Your task to perform on an android device: toggle notification dots Image 0: 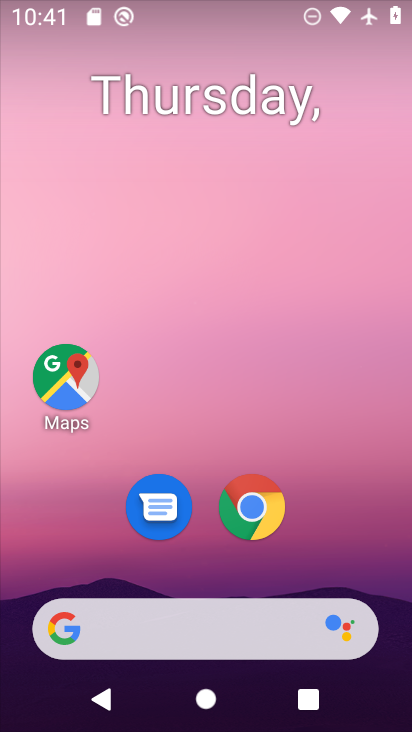
Step 0: drag from (331, 577) to (291, 46)
Your task to perform on an android device: toggle notification dots Image 1: 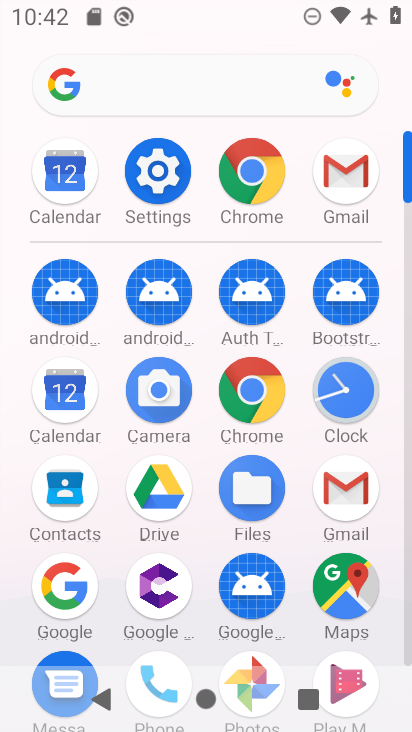
Step 1: click (158, 163)
Your task to perform on an android device: toggle notification dots Image 2: 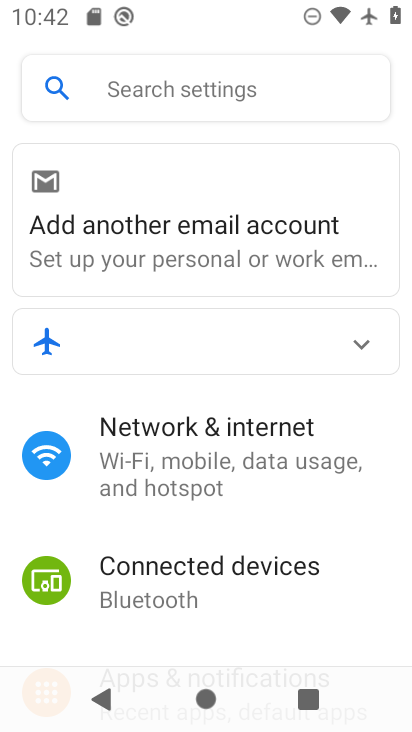
Step 2: drag from (321, 563) to (318, 141)
Your task to perform on an android device: toggle notification dots Image 3: 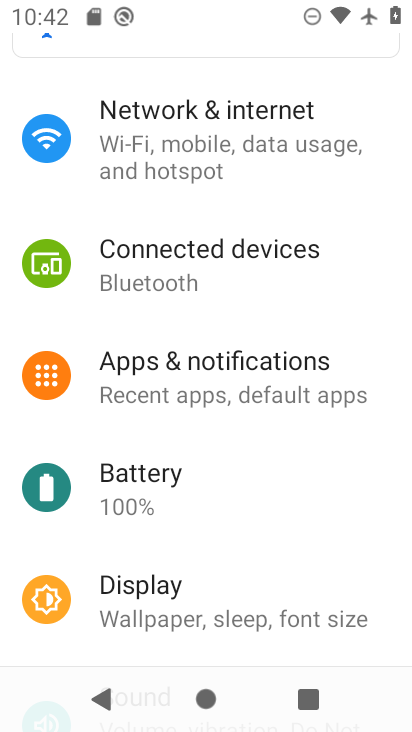
Step 3: click (212, 384)
Your task to perform on an android device: toggle notification dots Image 4: 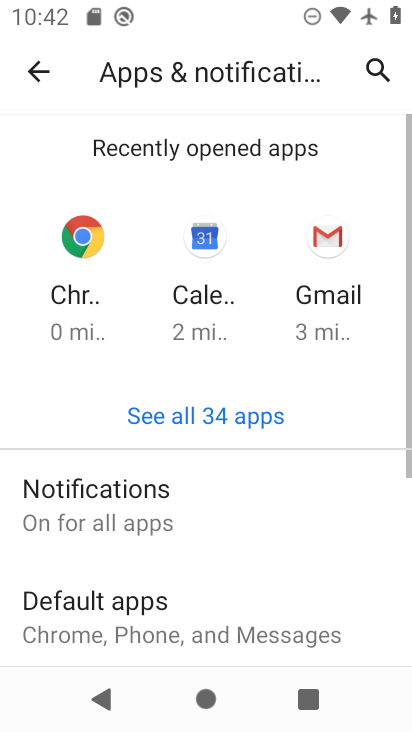
Step 4: click (175, 487)
Your task to perform on an android device: toggle notification dots Image 5: 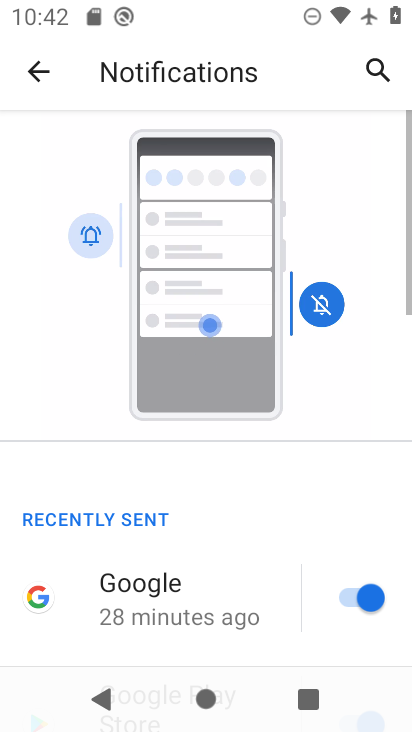
Step 5: drag from (276, 559) to (216, 210)
Your task to perform on an android device: toggle notification dots Image 6: 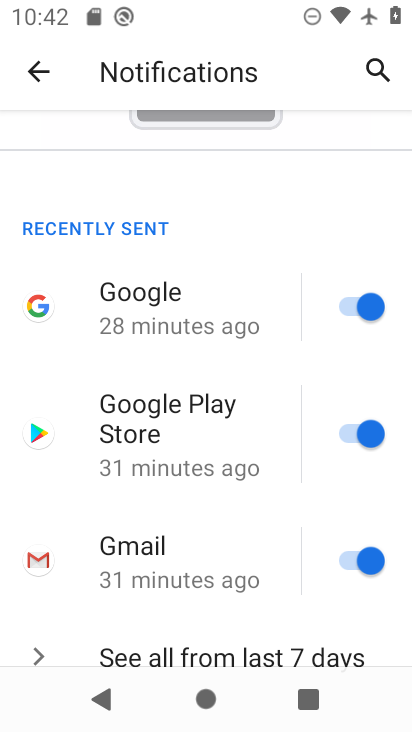
Step 6: drag from (219, 580) to (275, 206)
Your task to perform on an android device: toggle notification dots Image 7: 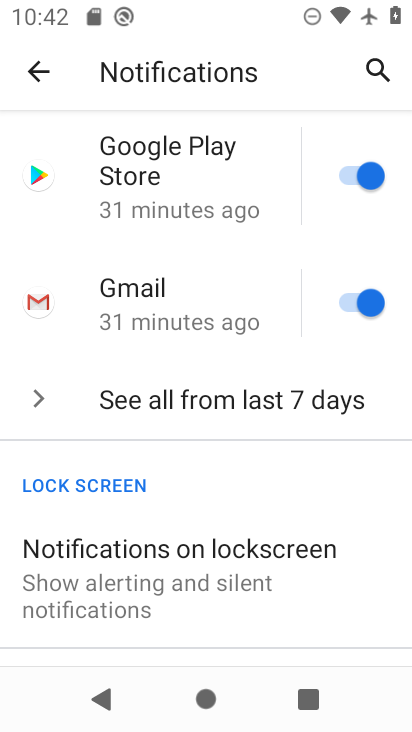
Step 7: drag from (266, 578) to (251, 169)
Your task to perform on an android device: toggle notification dots Image 8: 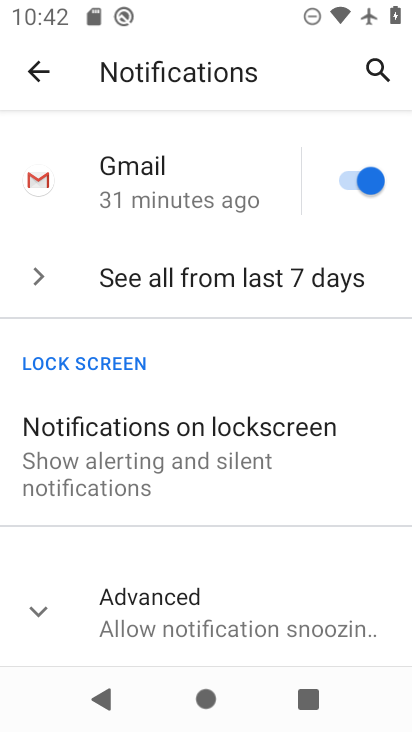
Step 8: click (131, 609)
Your task to perform on an android device: toggle notification dots Image 9: 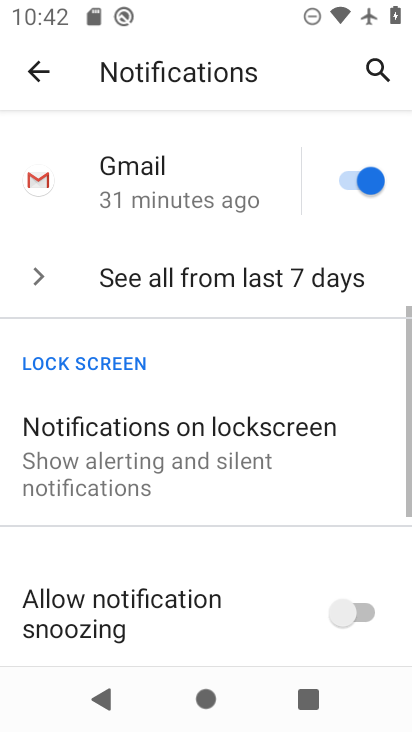
Step 9: drag from (209, 569) to (224, 216)
Your task to perform on an android device: toggle notification dots Image 10: 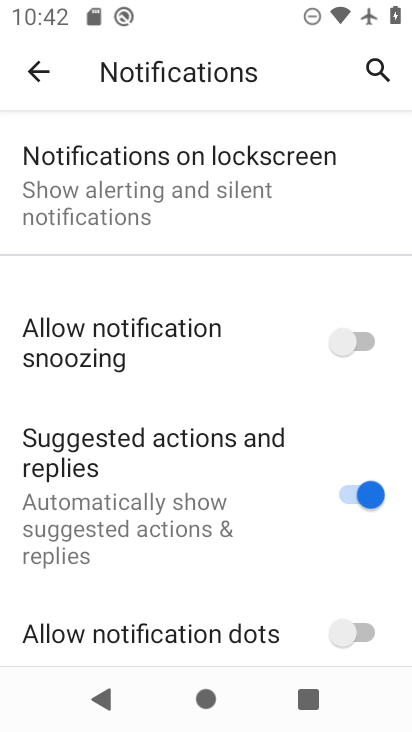
Step 10: drag from (222, 519) to (245, 251)
Your task to perform on an android device: toggle notification dots Image 11: 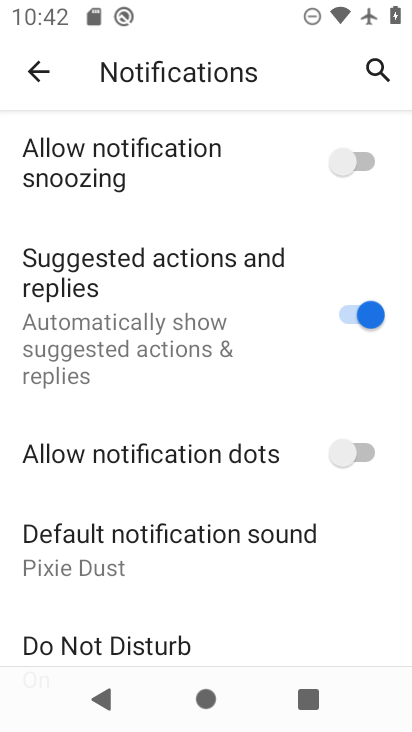
Step 11: click (367, 450)
Your task to perform on an android device: toggle notification dots Image 12: 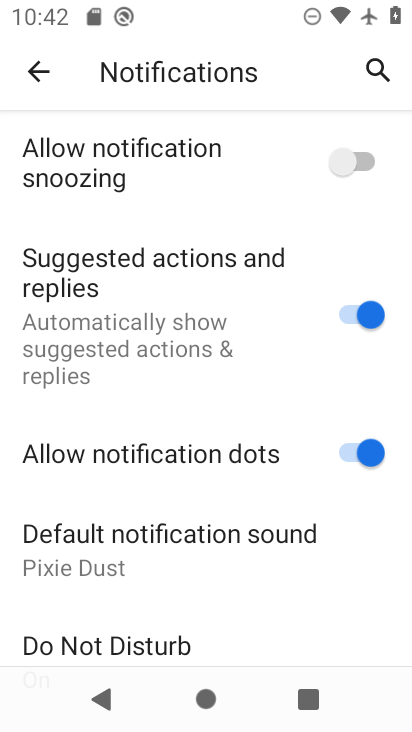
Step 12: task complete